Your task to perform on an android device: change the clock display to analog Image 0: 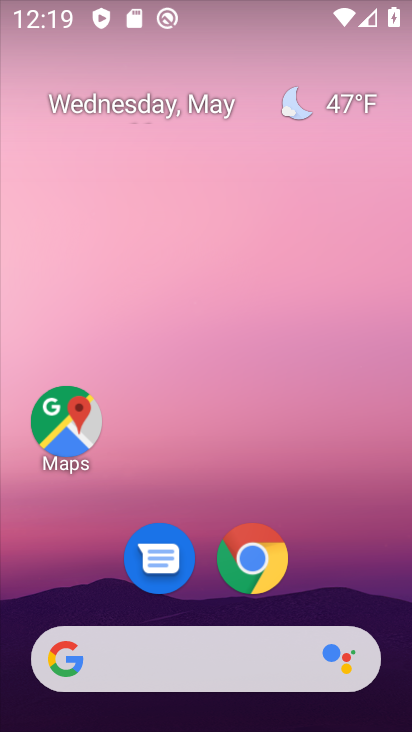
Step 0: drag from (219, 722) to (220, 124)
Your task to perform on an android device: change the clock display to analog Image 1: 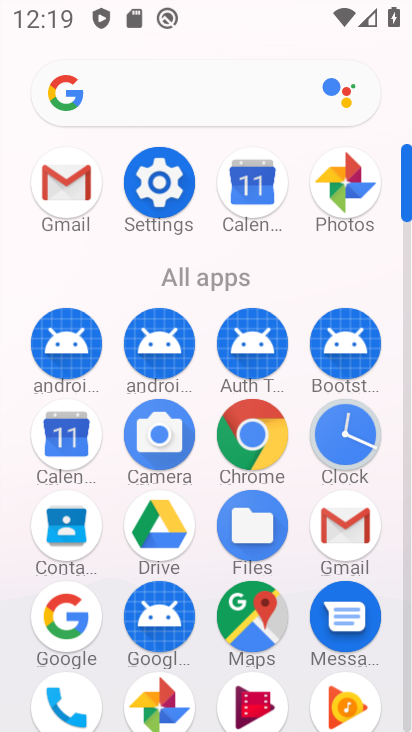
Step 1: click (348, 432)
Your task to perform on an android device: change the clock display to analog Image 2: 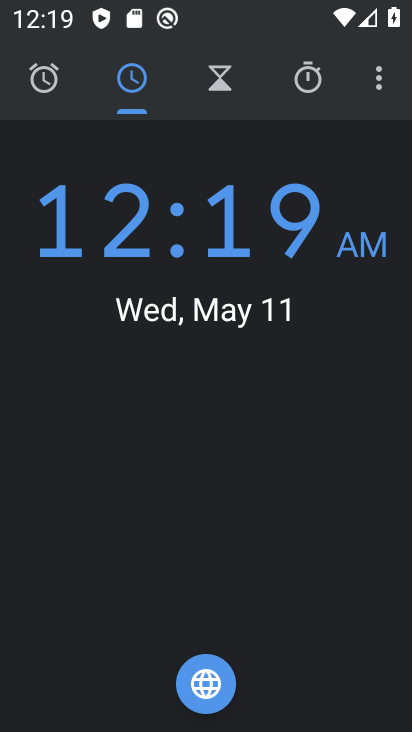
Step 2: click (380, 88)
Your task to perform on an android device: change the clock display to analog Image 3: 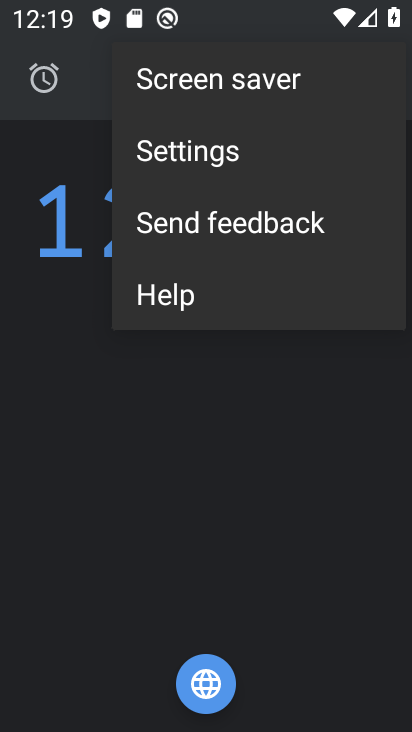
Step 3: click (190, 148)
Your task to perform on an android device: change the clock display to analog Image 4: 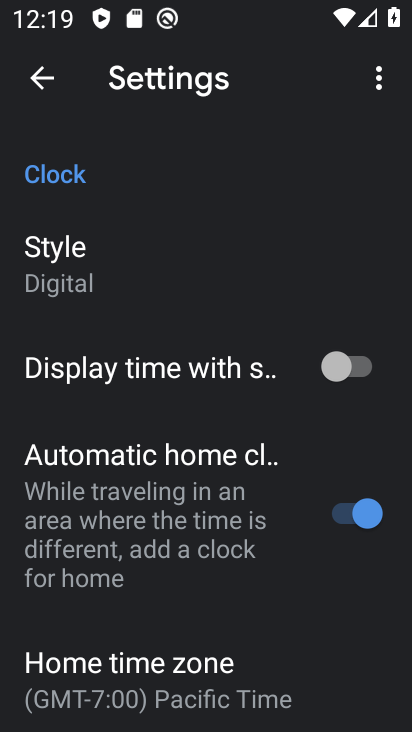
Step 4: click (75, 266)
Your task to perform on an android device: change the clock display to analog Image 5: 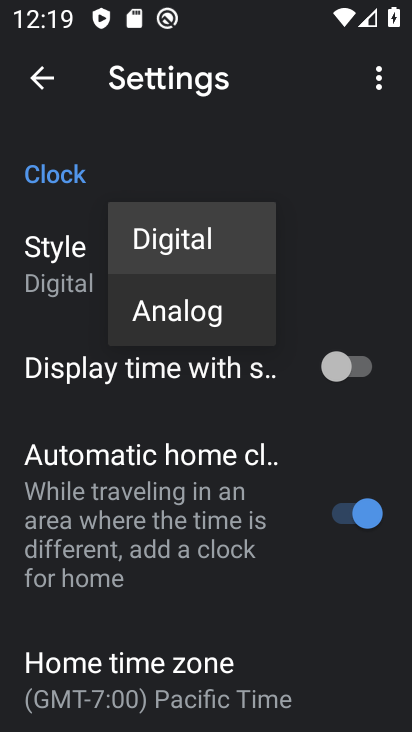
Step 5: click (183, 309)
Your task to perform on an android device: change the clock display to analog Image 6: 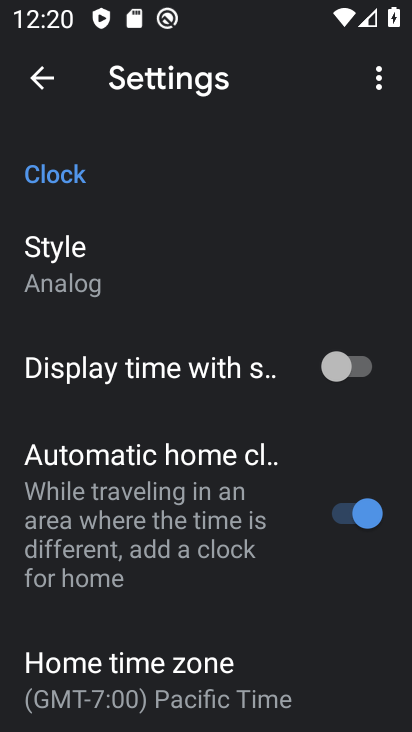
Step 6: task complete